Your task to perform on an android device: set the timer Image 0: 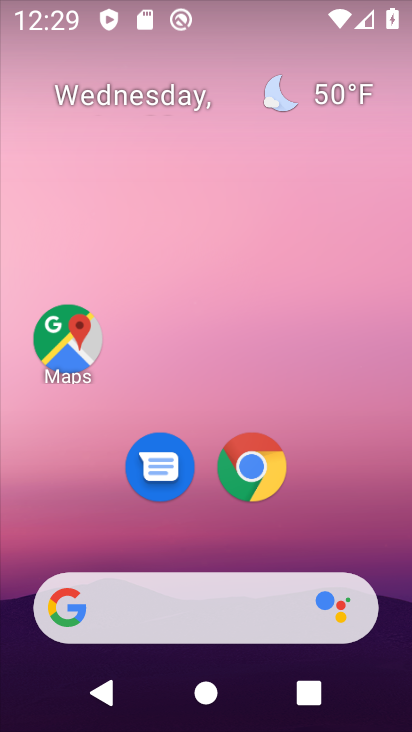
Step 0: drag from (214, 316) to (255, 3)
Your task to perform on an android device: set the timer Image 1: 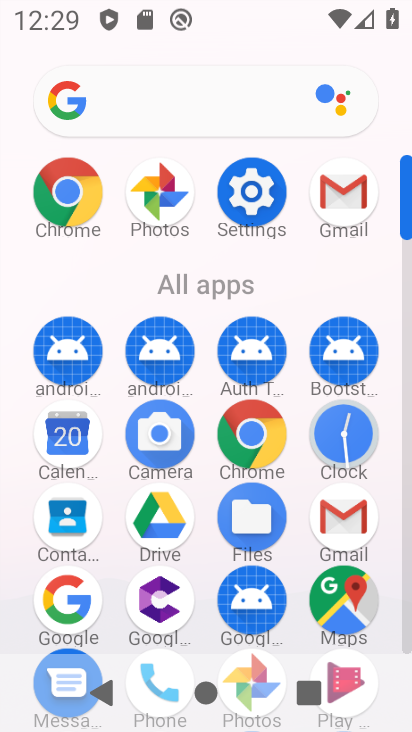
Step 1: click (348, 437)
Your task to perform on an android device: set the timer Image 2: 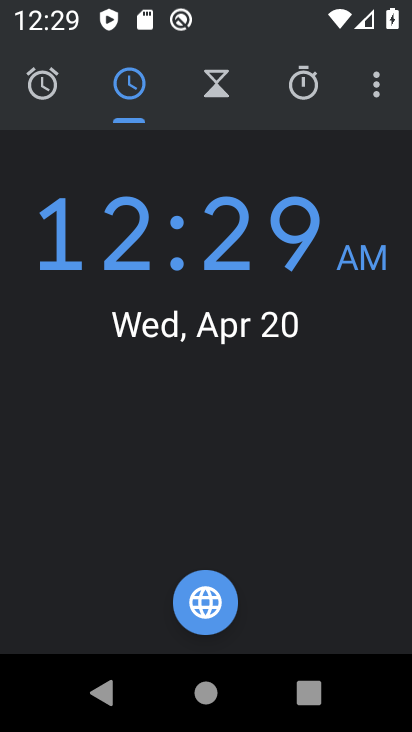
Step 2: click (218, 96)
Your task to perform on an android device: set the timer Image 3: 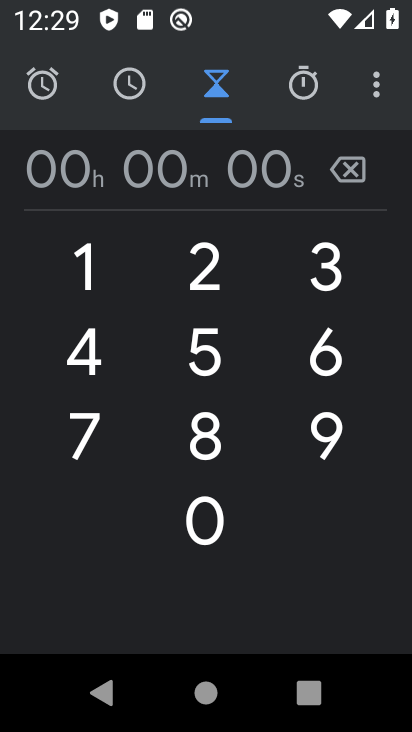
Step 3: click (214, 425)
Your task to perform on an android device: set the timer Image 4: 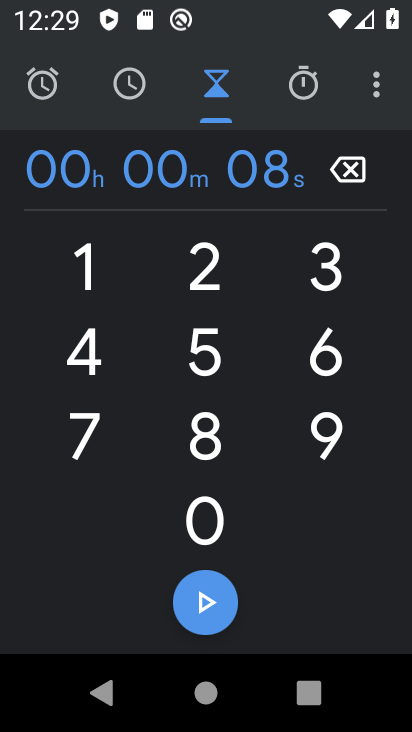
Step 4: click (313, 368)
Your task to perform on an android device: set the timer Image 5: 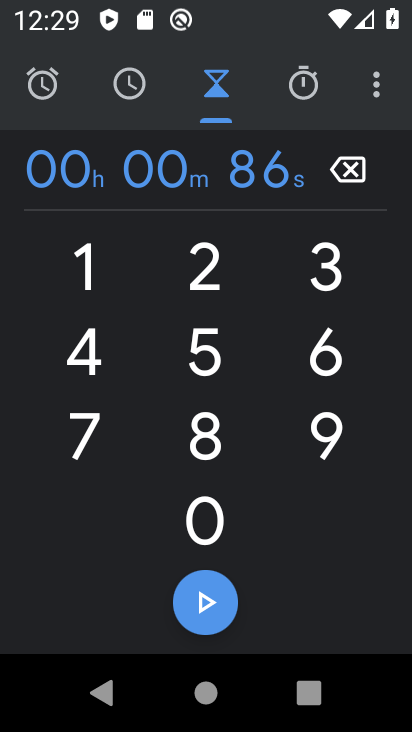
Step 5: click (91, 253)
Your task to perform on an android device: set the timer Image 6: 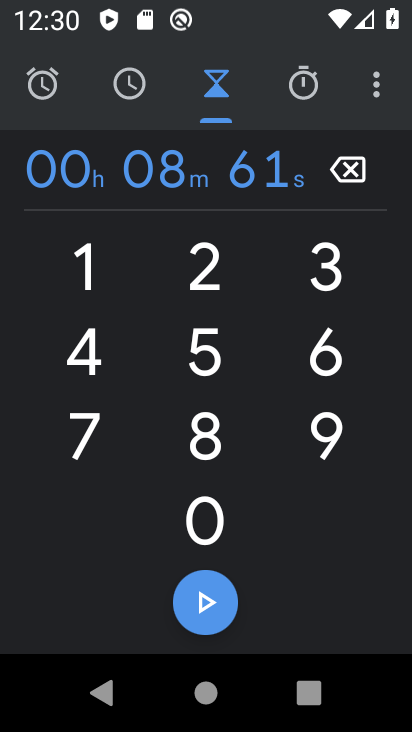
Step 6: click (91, 253)
Your task to perform on an android device: set the timer Image 7: 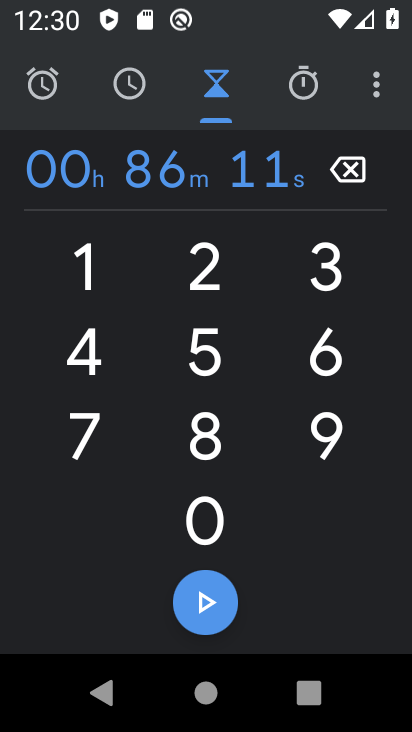
Step 7: click (192, 605)
Your task to perform on an android device: set the timer Image 8: 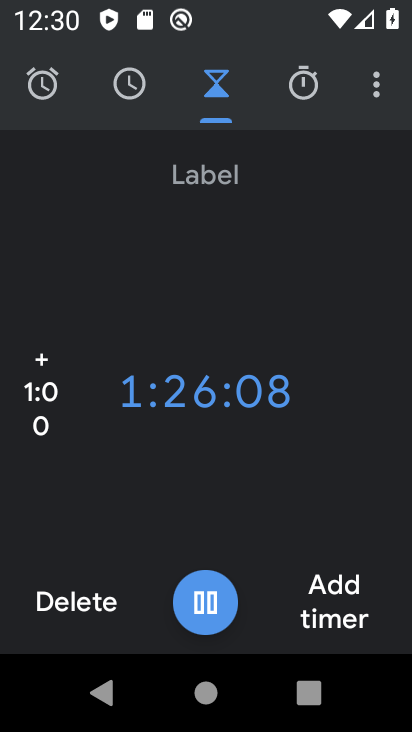
Step 8: task complete